Your task to perform on an android device: Open calendar and show me the second week of next month Image 0: 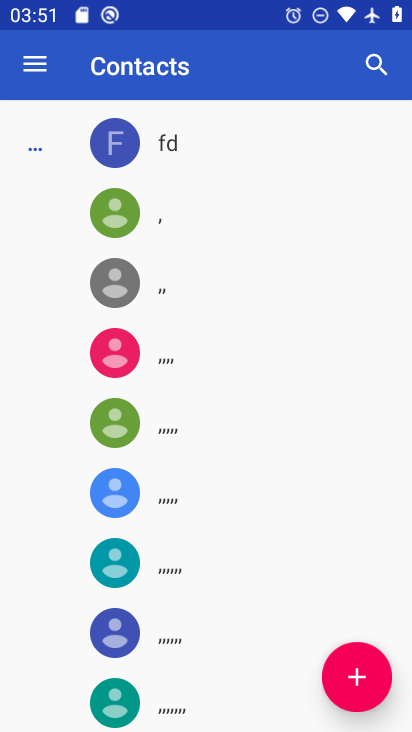
Step 0: press home button
Your task to perform on an android device: Open calendar and show me the second week of next month Image 1: 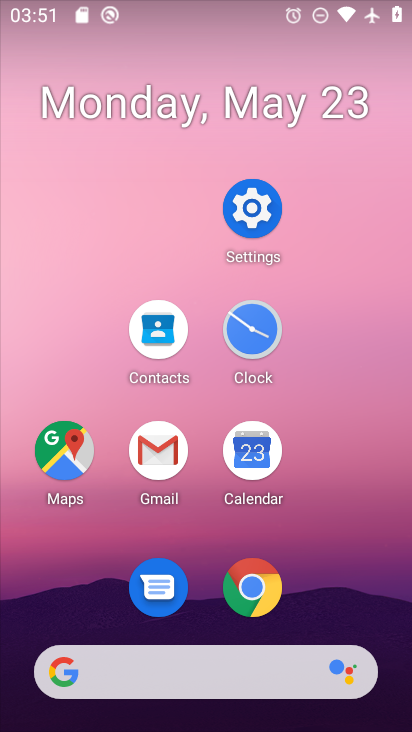
Step 1: click (245, 434)
Your task to perform on an android device: Open calendar and show me the second week of next month Image 2: 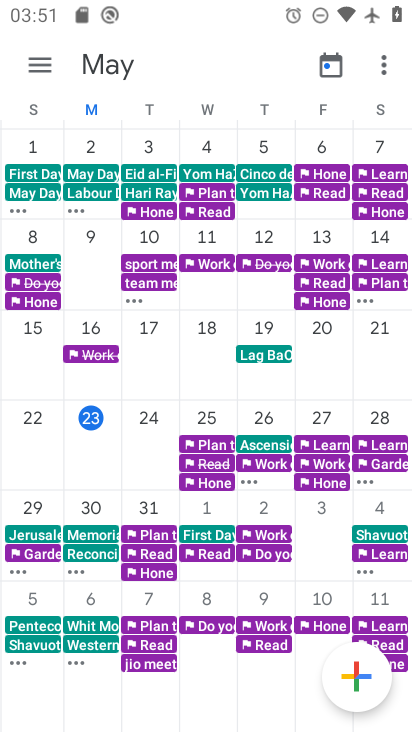
Step 2: task complete